Your task to perform on an android device: visit the assistant section in the google photos Image 0: 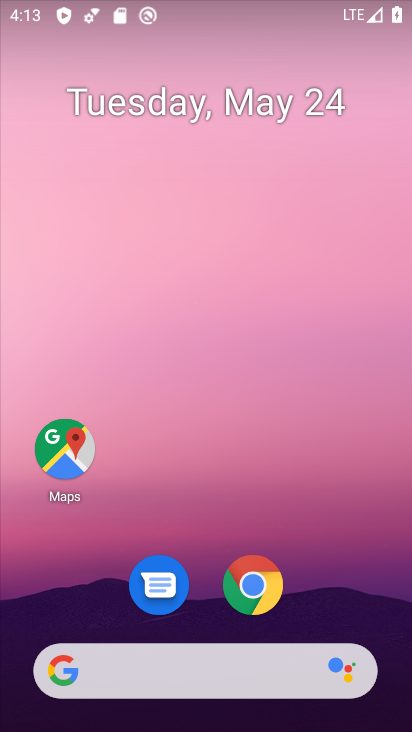
Step 0: drag from (229, 518) to (276, 35)
Your task to perform on an android device: visit the assistant section in the google photos Image 1: 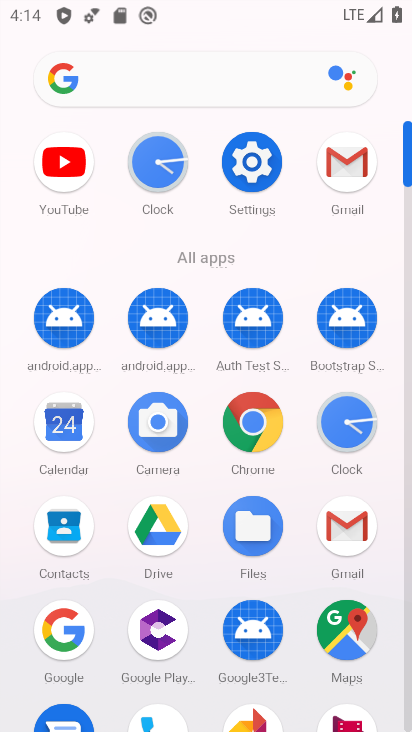
Step 1: drag from (210, 468) to (224, 227)
Your task to perform on an android device: visit the assistant section in the google photos Image 2: 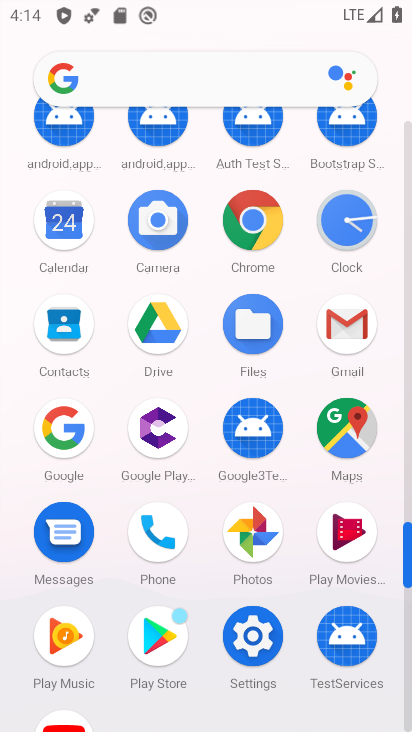
Step 2: click (254, 527)
Your task to perform on an android device: visit the assistant section in the google photos Image 3: 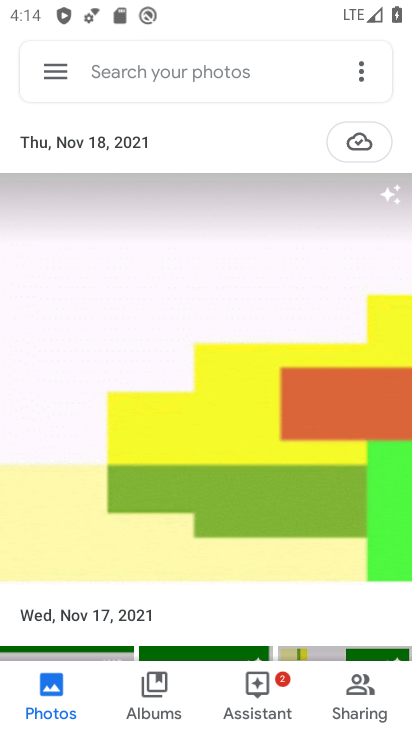
Step 3: click (259, 685)
Your task to perform on an android device: visit the assistant section in the google photos Image 4: 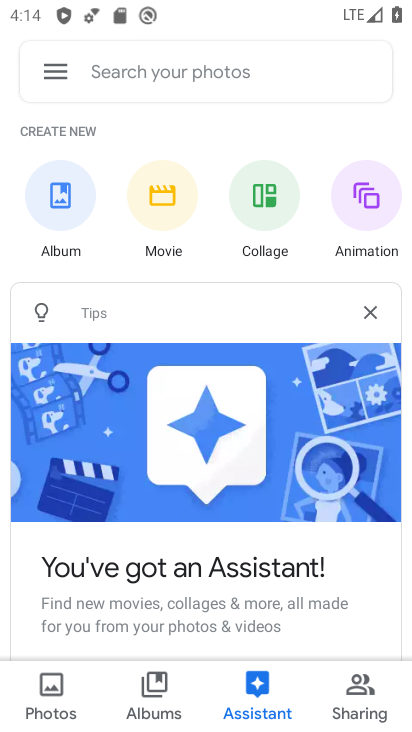
Step 4: task complete